Your task to perform on an android device: Show me popular games on the Play Store Image 0: 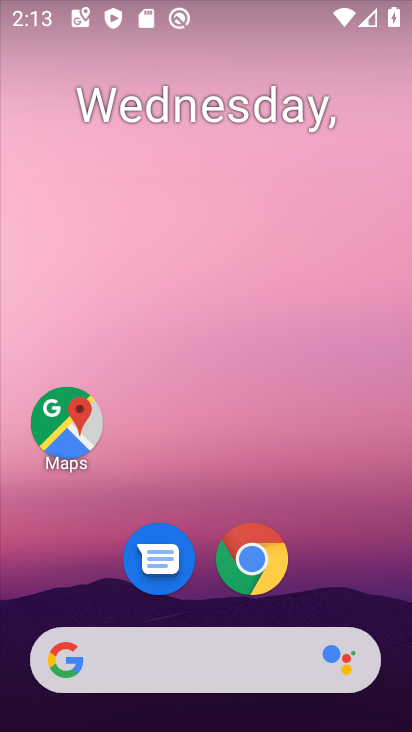
Step 0: press home button
Your task to perform on an android device: Show me popular games on the Play Store Image 1: 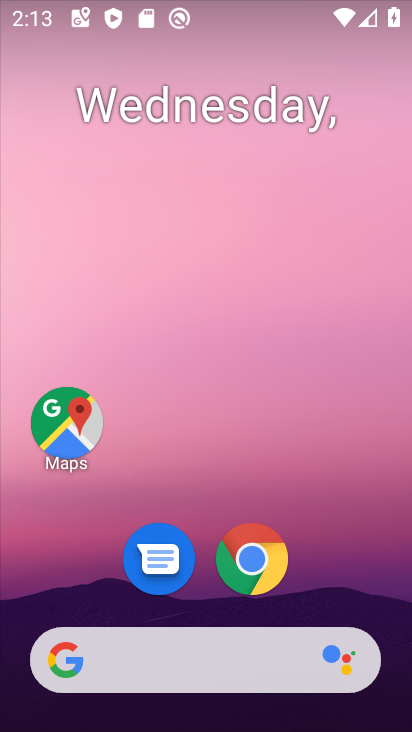
Step 1: drag from (337, 589) to (349, 392)
Your task to perform on an android device: Show me popular games on the Play Store Image 2: 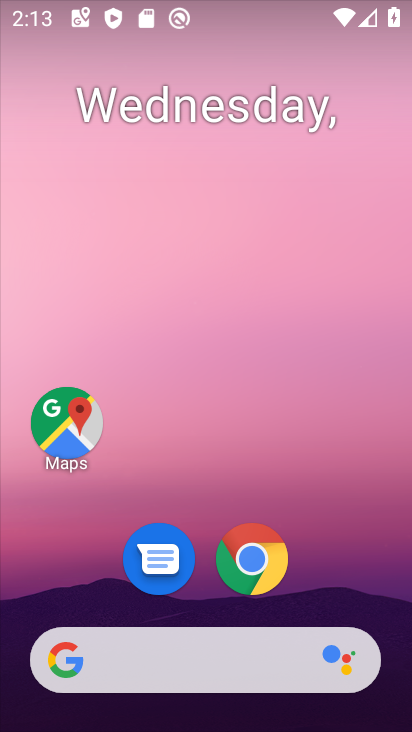
Step 2: drag from (349, 392) to (300, 17)
Your task to perform on an android device: Show me popular games on the Play Store Image 3: 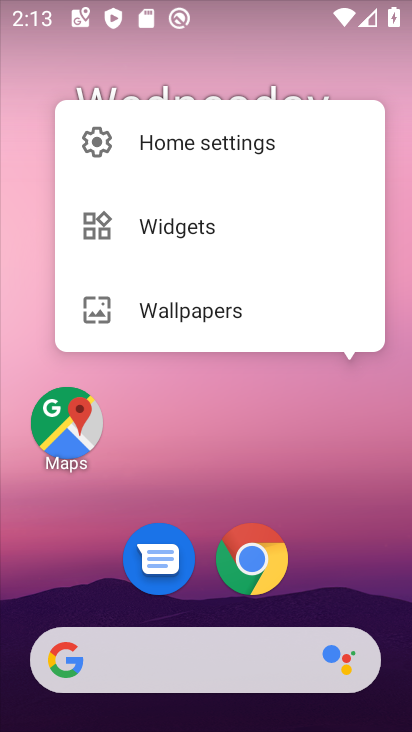
Step 3: click (360, 451)
Your task to perform on an android device: Show me popular games on the Play Store Image 4: 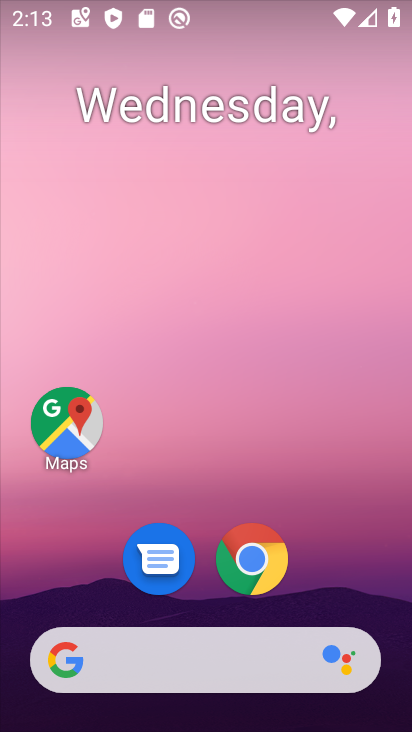
Step 4: drag from (357, 382) to (410, 324)
Your task to perform on an android device: Show me popular games on the Play Store Image 5: 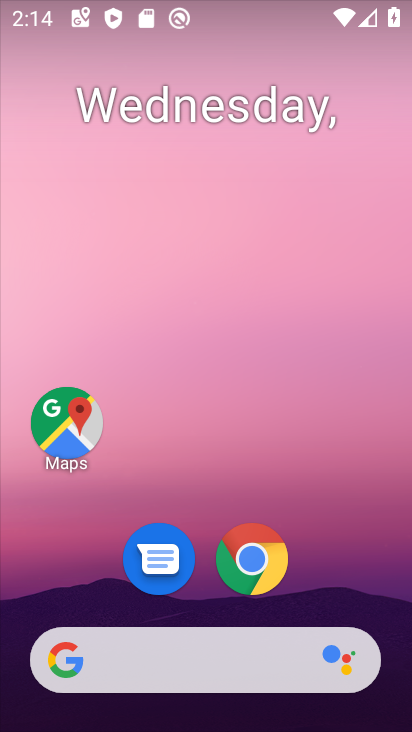
Step 5: drag from (342, 599) to (370, 142)
Your task to perform on an android device: Show me popular games on the Play Store Image 6: 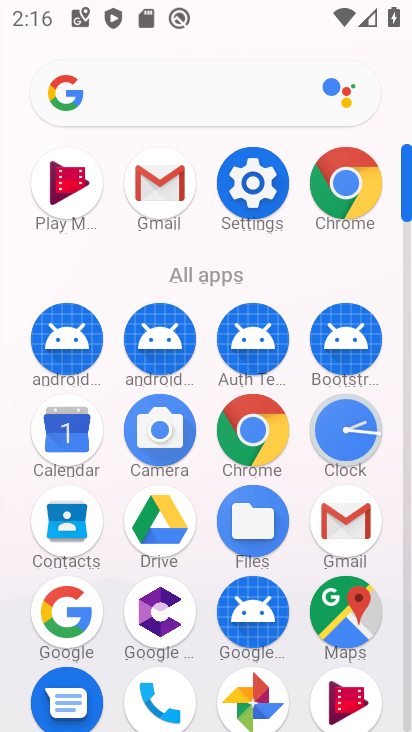
Step 6: click (407, 634)
Your task to perform on an android device: Show me popular games on the Play Store Image 7: 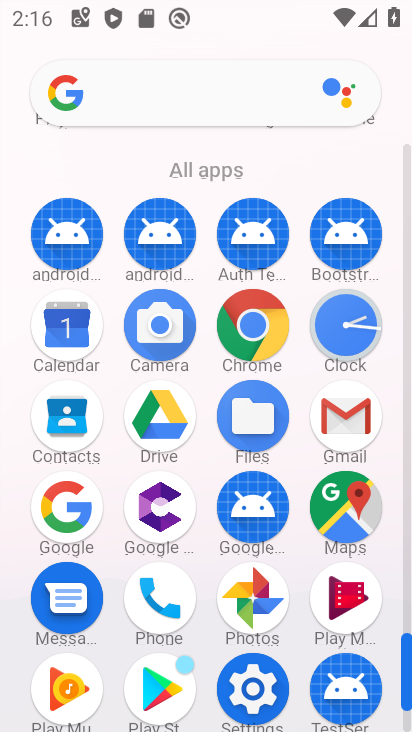
Step 7: click (152, 692)
Your task to perform on an android device: Show me popular games on the Play Store Image 8: 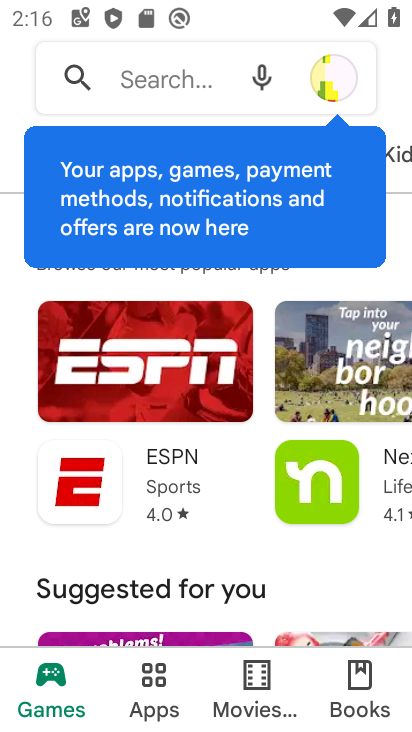
Step 8: click (223, 93)
Your task to perform on an android device: Show me popular games on the Play Store Image 9: 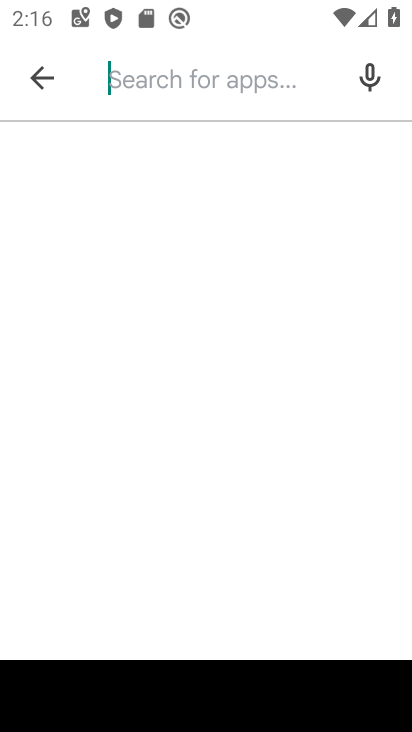
Step 9: type " popular games "
Your task to perform on an android device: Show me popular games on the Play Store Image 10: 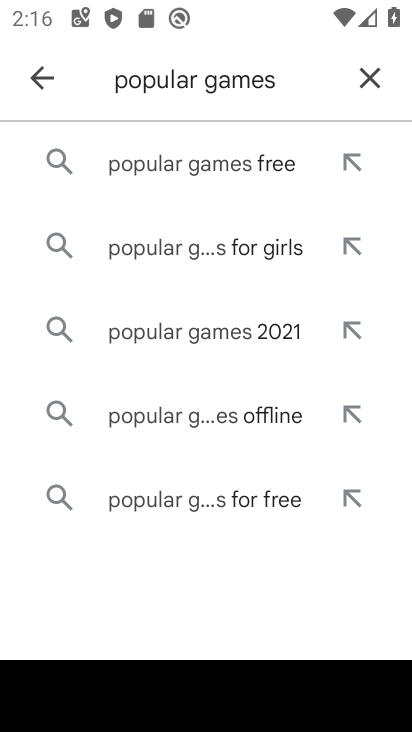
Step 10: click (297, 166)
Your task to perform on an android device: Show me popular games on the Play Store Image 11: 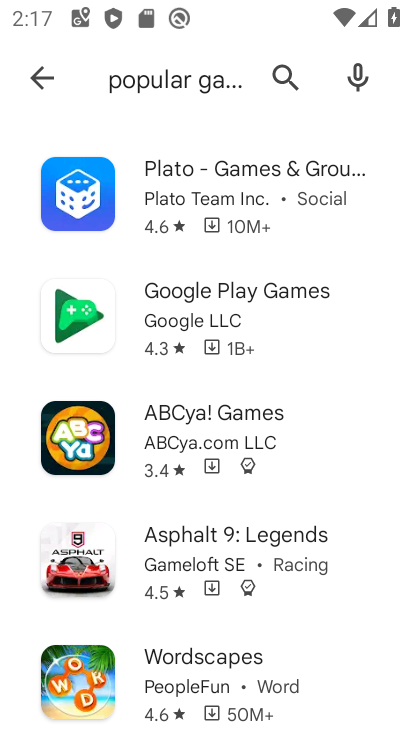
Step 11: task complete